Your task to perform on an android device: toggle location history Image 0: 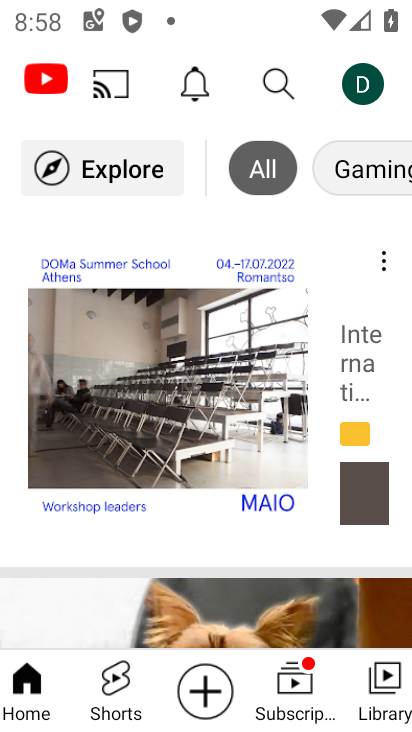
Step 0: press home button
Your task to perform on an android device: toggle location history Image 1: 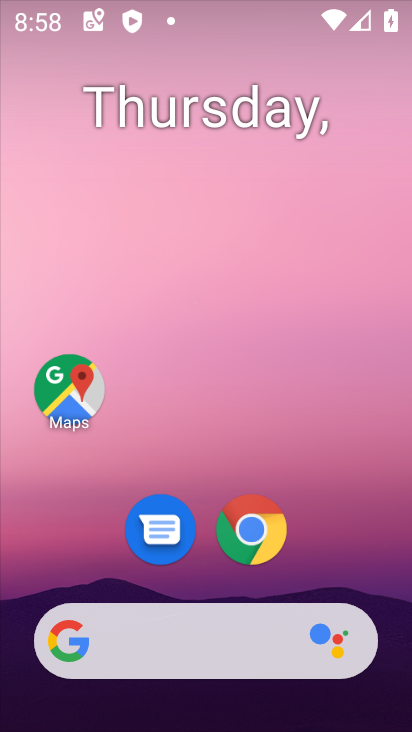
Step 1: drag from (221, 626) to (221, 64)
Your task to perform on an android device: toggle location history Image 2: 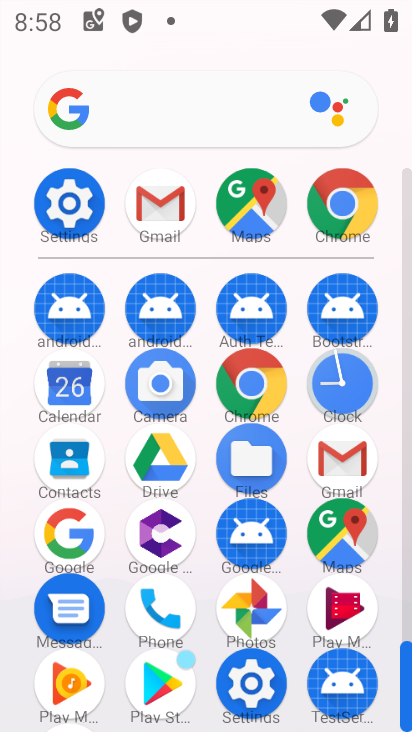
Step 2: click (66, 211)
Your task to perform on an android device: toggle location history Image 3: 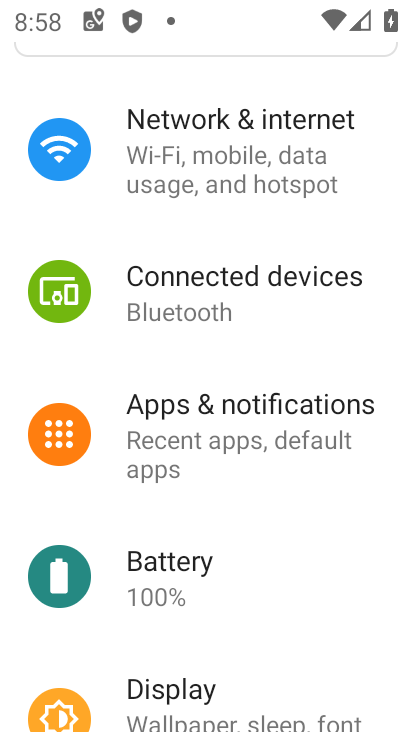
Step 3: drag from (318, 692) to (310, 186)
Your task to perform on an android device: toggle location history Image 4: 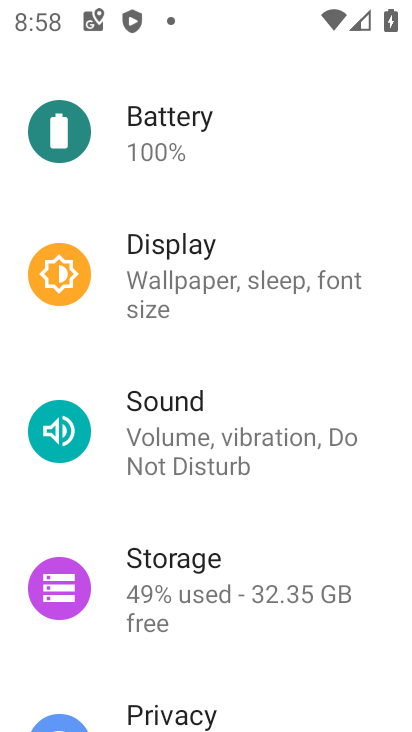
Step 4: drag from (225, 704) to (224, 555)
Your task to perform on an android device: toggle location history Image 5: 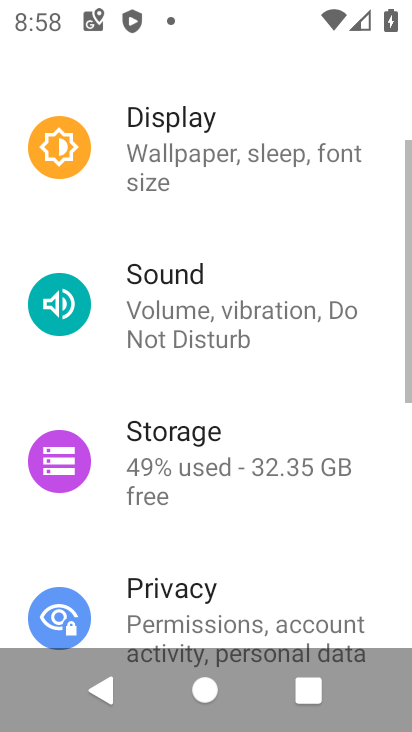
Step 5: drag from (216, 372) to (215, 188)
Your task to perform on an android device: toggle location history Image 6: 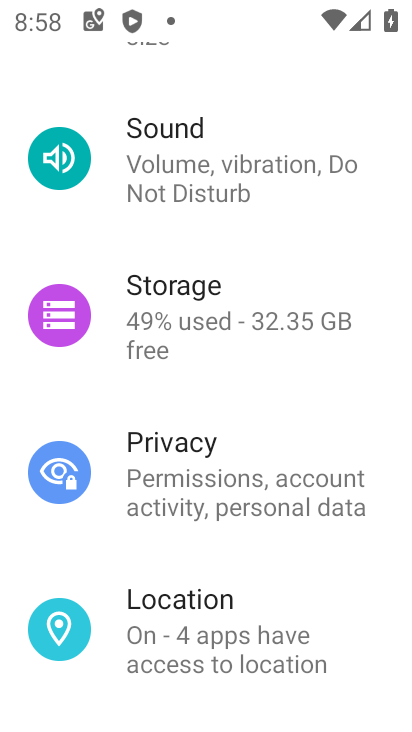
Step 6: click (185, 611)
Your task to perform on an android device: toggle location history Image 7: 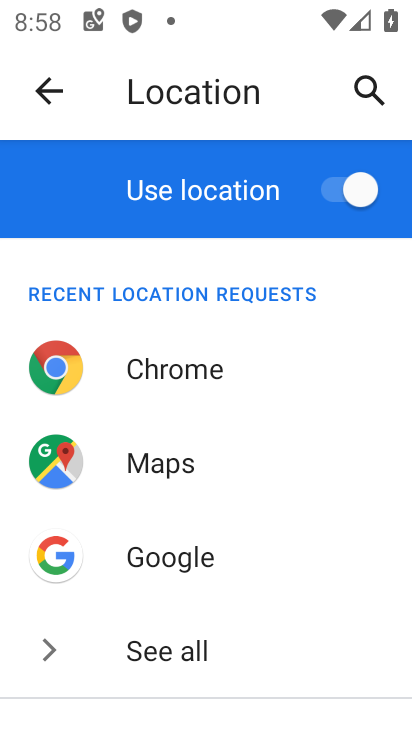
Step 7: drag from (263, 702) to (263, 566)
Your task to perform on an android device: toggle location history Image 8: 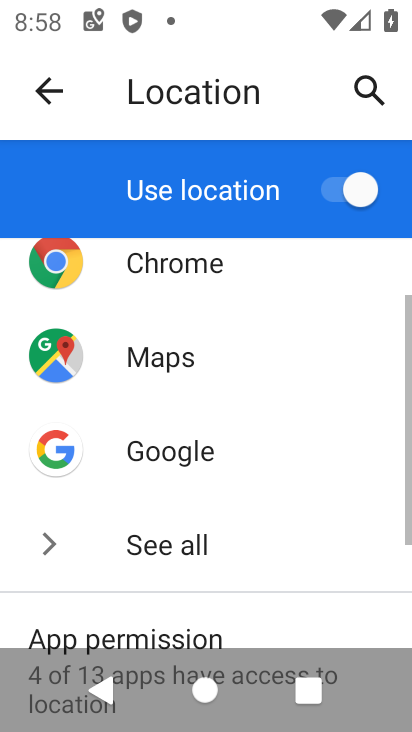
Step 8: drag from (265, 393) to (265, 202)
Your task to perform on an android device: toggle location history Image 9: 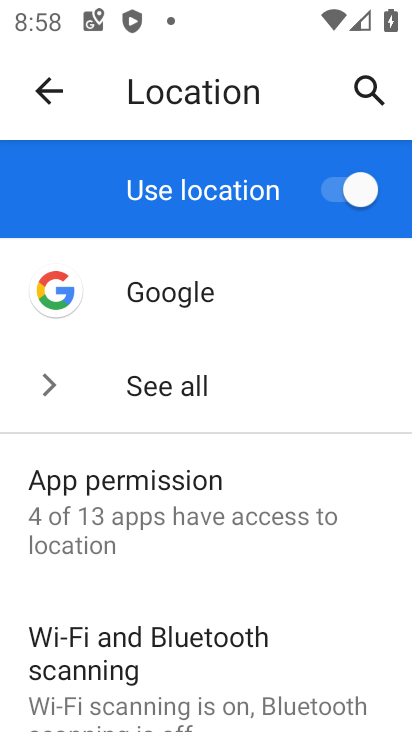
Step 9: drag from (200, 689) to (236, 215)
Your task to perform on an android device: toggle location history Image 10: 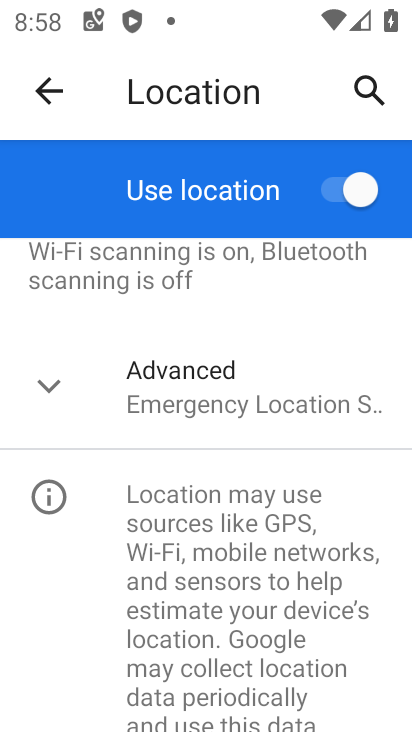
Step 10: click (176, 394)
Your task to perform on an android device: toggle location history Image 11: 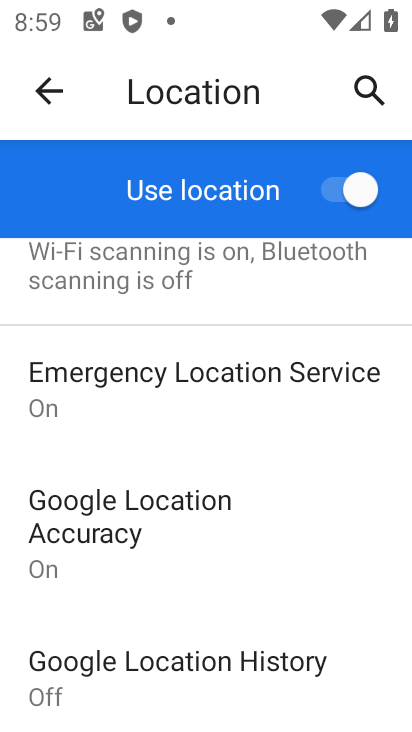
Step 11: click (186, 665)
Your task to perform on an android device: toggle location history Image 12: 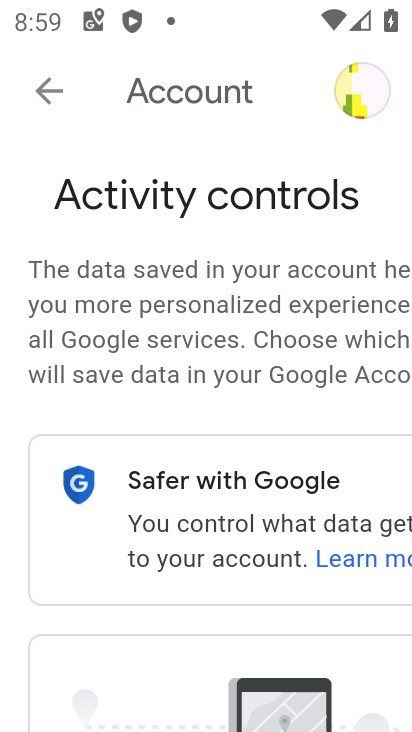
Step 12: drag from (133, 693) to (143, 226)
Your task to perform on an android device: toggle location history Image 13: 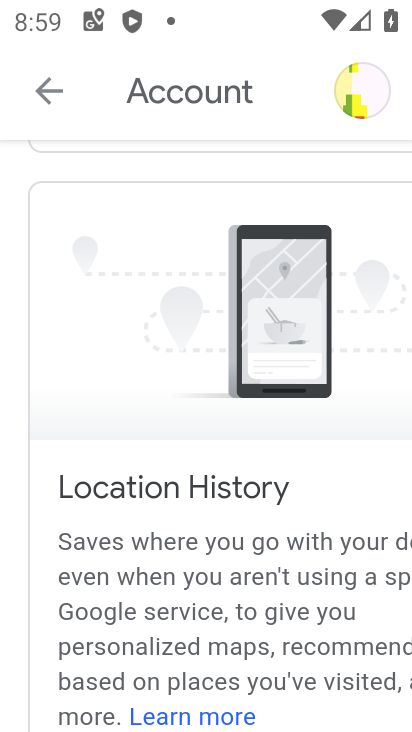
Step 13: drag from (139, 676) to (154, 480)
Your task to perform on an android device: toggle location history Image 14: 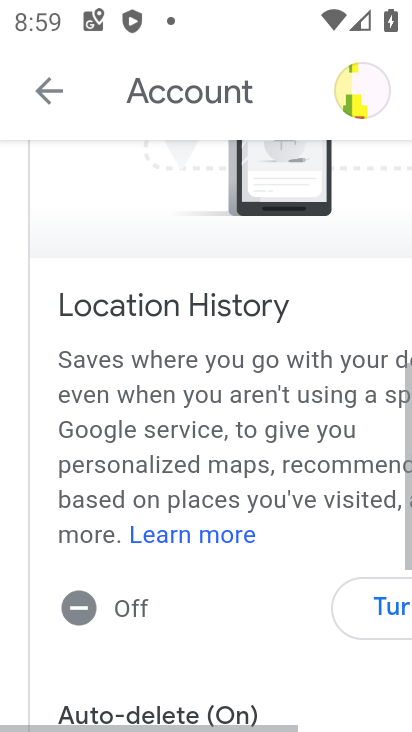
Step 14: drag from (155, 199) to (154, 109)
Your task to perform on an android device: toggle location history Image 15: 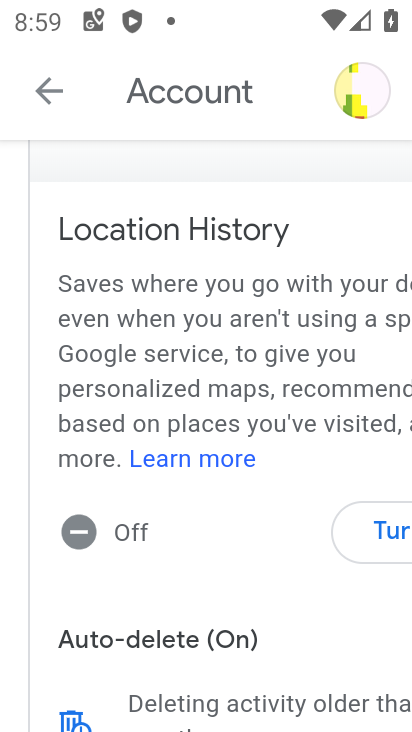
Step 15: click (380, 531)
Your task to perform on an android device: toggle location history Image 16: 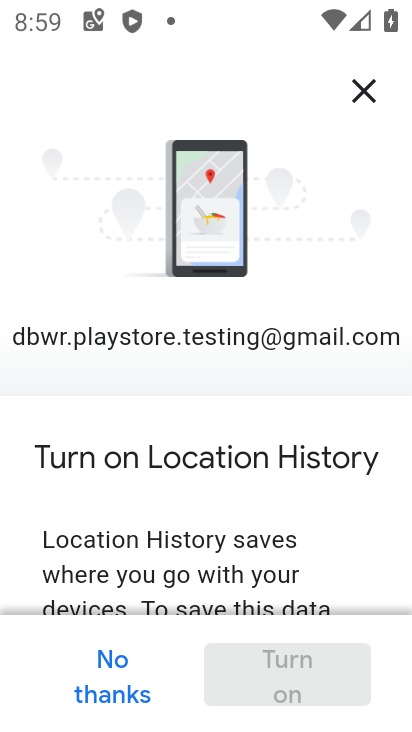
Step 16: drag from (277, 584) to (278, 336)
Your task to perform on an android device: toggle location history Image 17: 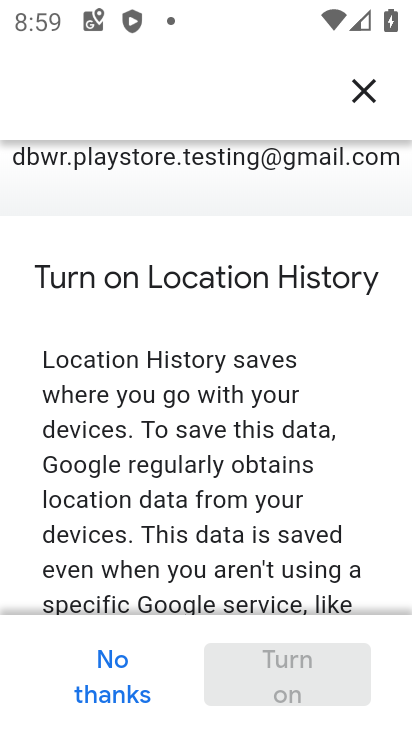
Step 17: click (280, 143)
Your task to perform on an android device: toggle location history Image 18: 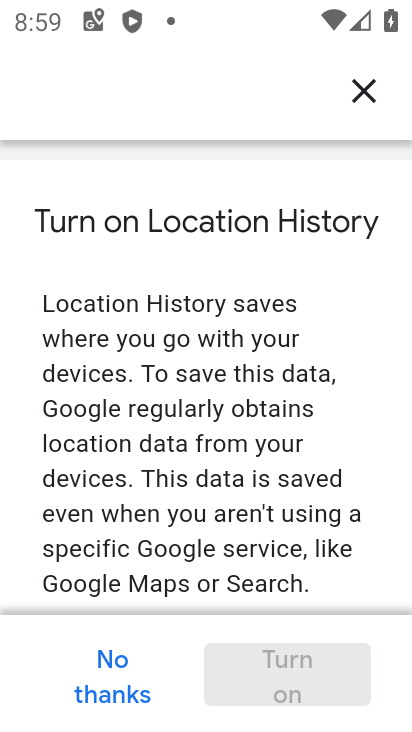
Step 18: drag from (266, 574) to (266, 408)
Your task to perform on an android device: toggle location history Image 19: 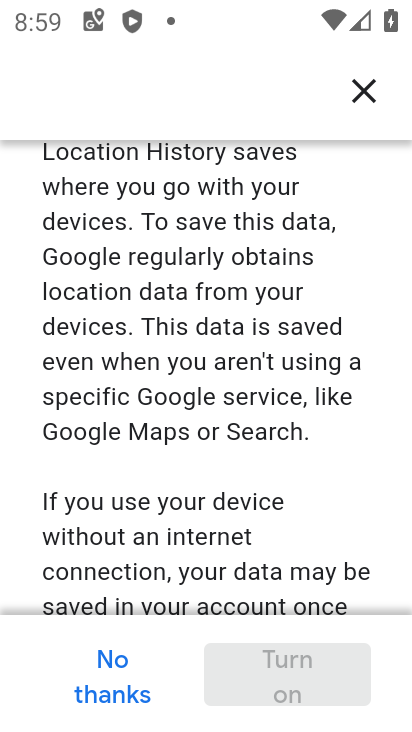
Step 19: click (266, 186)
Your task to perform on an android device: toggle location history Image 20: 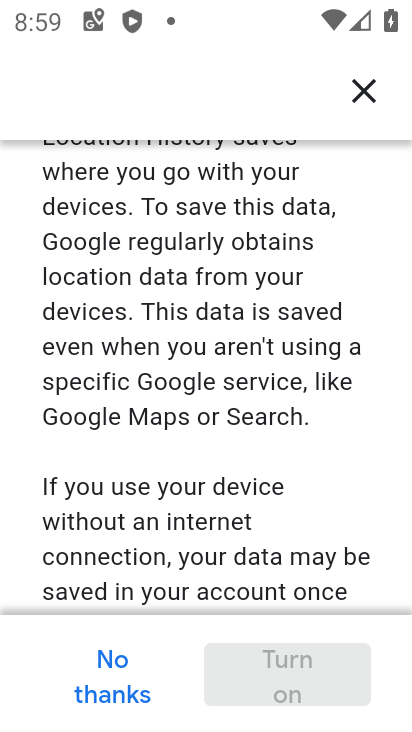
Step 20: drag from (335, 553) to (327, 88)
Your task to perform on an android device: toggle location history Image 21: 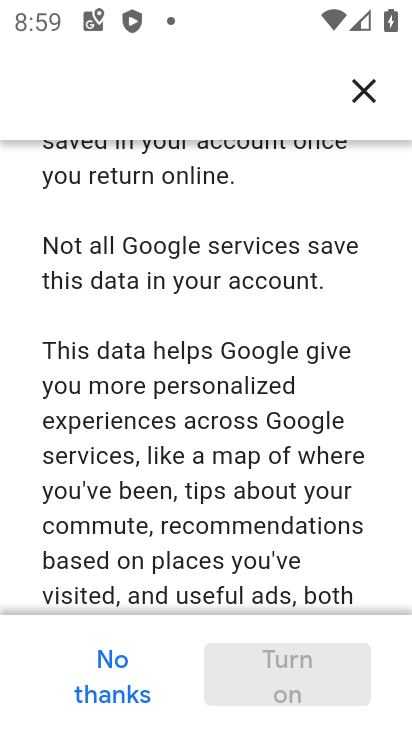
Step 21: drag from (307, 578) to (308, 350)
Your task to perform on an android device: toggle location history Image 22: 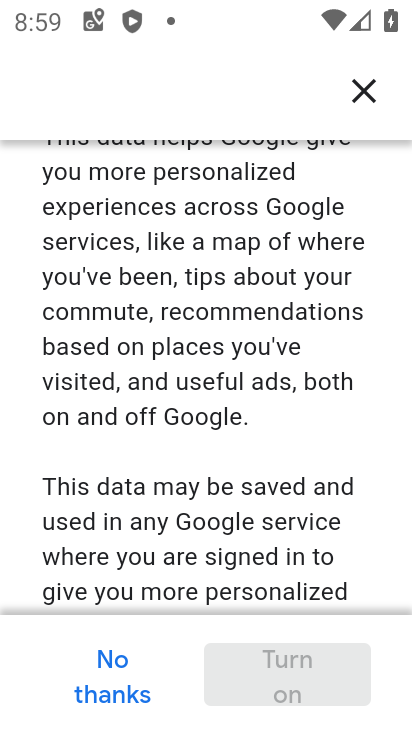
Step 22: click (309, 177)
Your task to perform on an android device: toggle location history Image 23: 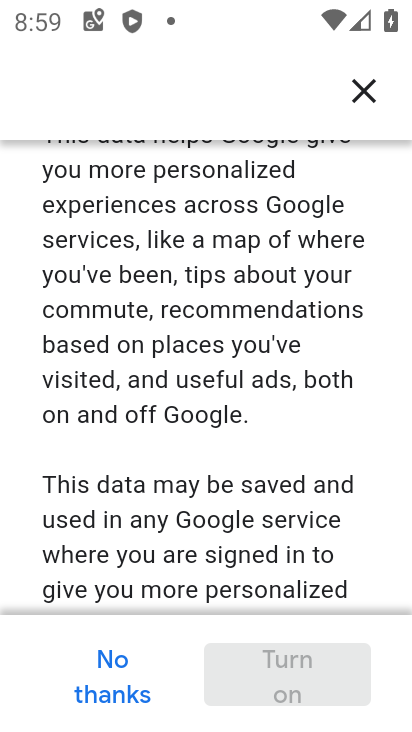
Step 23: drag from (297, 578) to (296, 147)
Your task to perform on an android device: toggle location history Image 24: 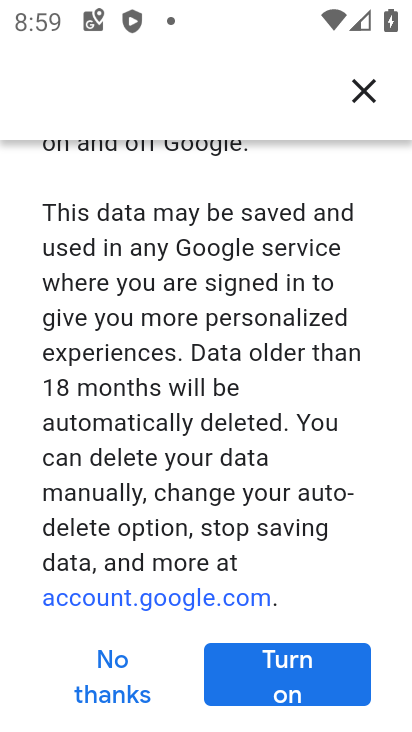
Step 24: click (285, 679)
Your task to perform on an android device: toggle location history Image 25: 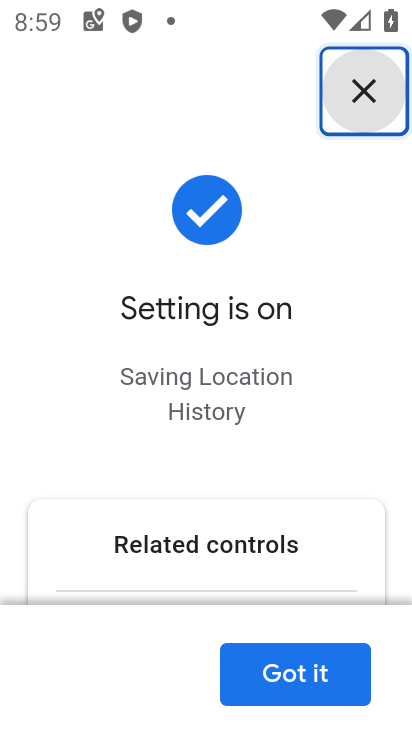
Step 25: task complete